Your task to perform on an android device: Check the weather Image 0: 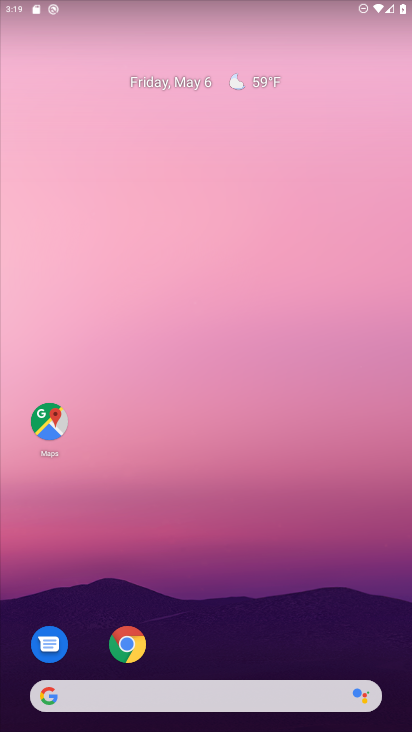
Step 0: click (237, 80)
Your task to perform on an android device: Check the weather Image 1: 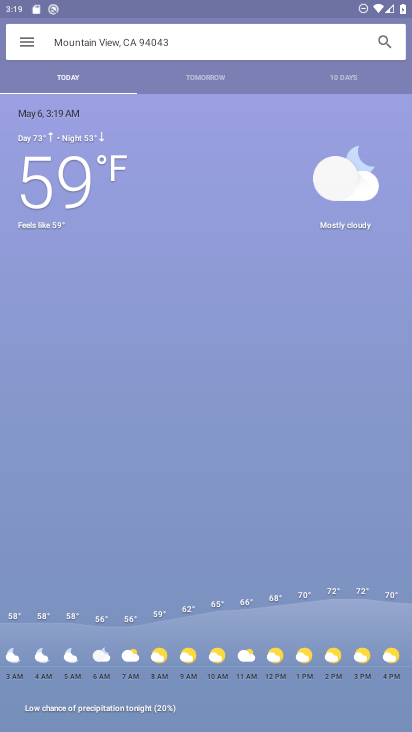
Step 1: task complete